Your task to perform on an android device: Open network settings Image 0: 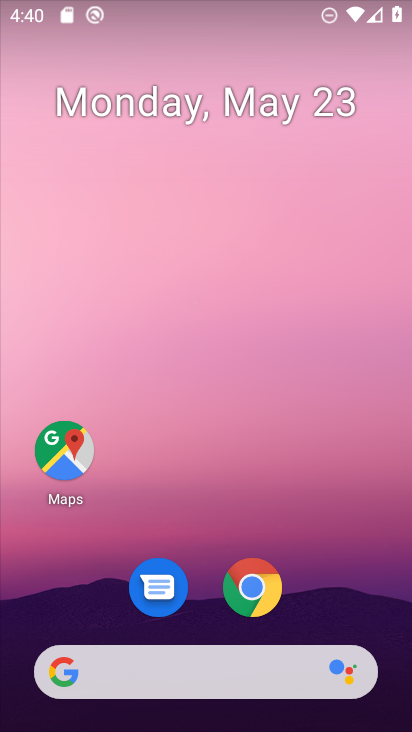
Step 0: drag from (218, 629) to (233, 96)
Your task to perform on an android device: Open network settings Image 1: 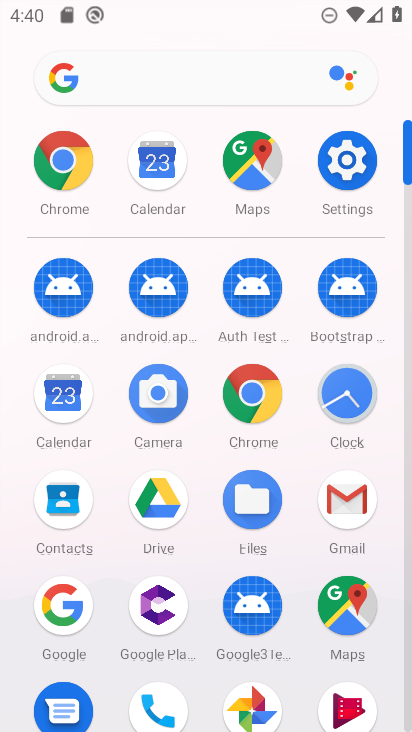
Step 1: click (358, 162)
Your task to perform on an android device: Open network settings Image 2: 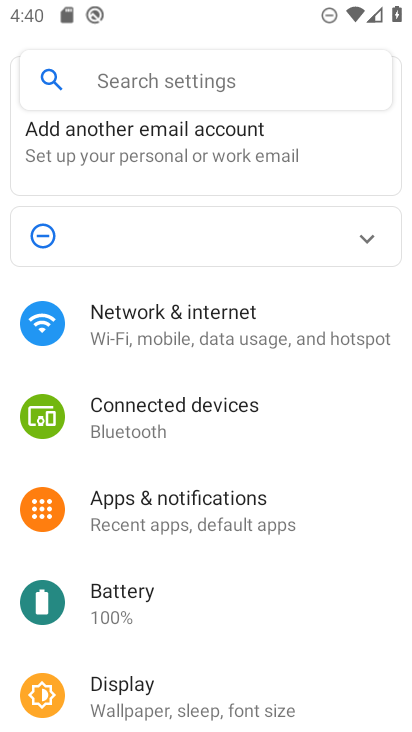
Step 2: click (231, 321)
Your task to perform on an android device: Open network settings Image 3: 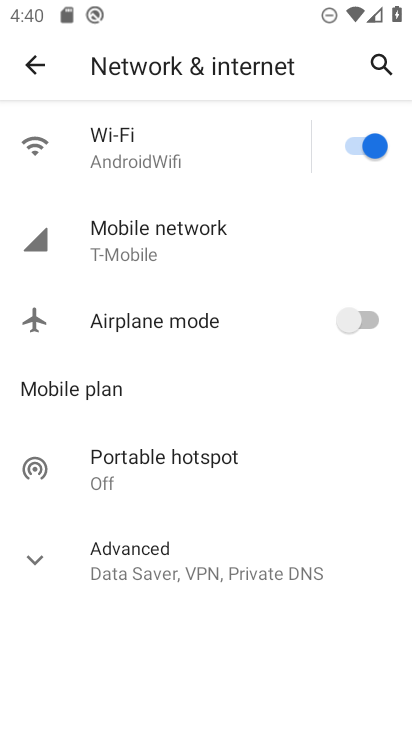
Step 3: task complete